Your task to perform on an android device: How much does a 3 bedroom apartment rent for in Austin? Image 0: 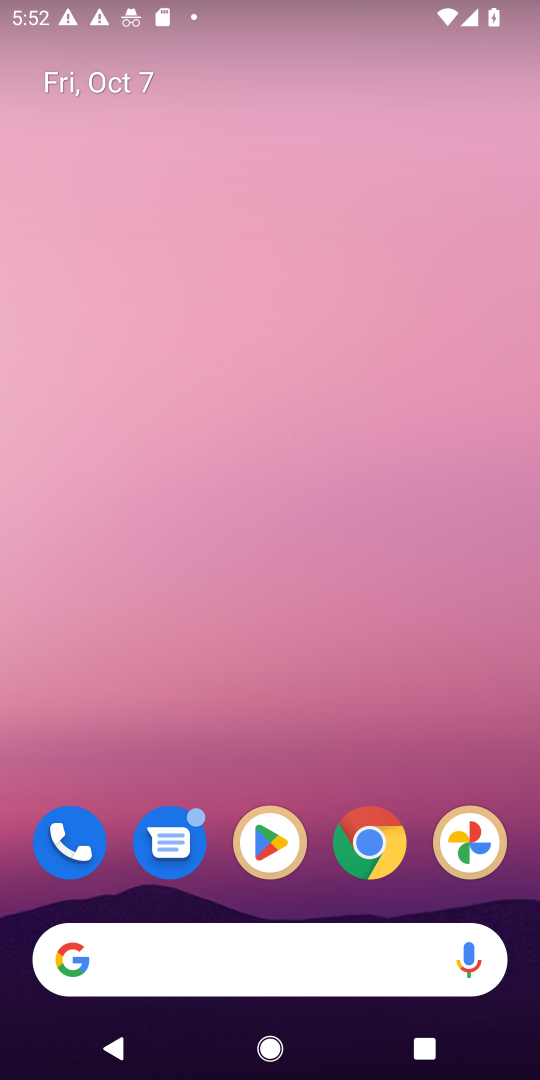
Step 0: click (221, 964)
Your task to perform on an android device: How much does a 3 bedroom apartment rent for in Austin? Image 1: 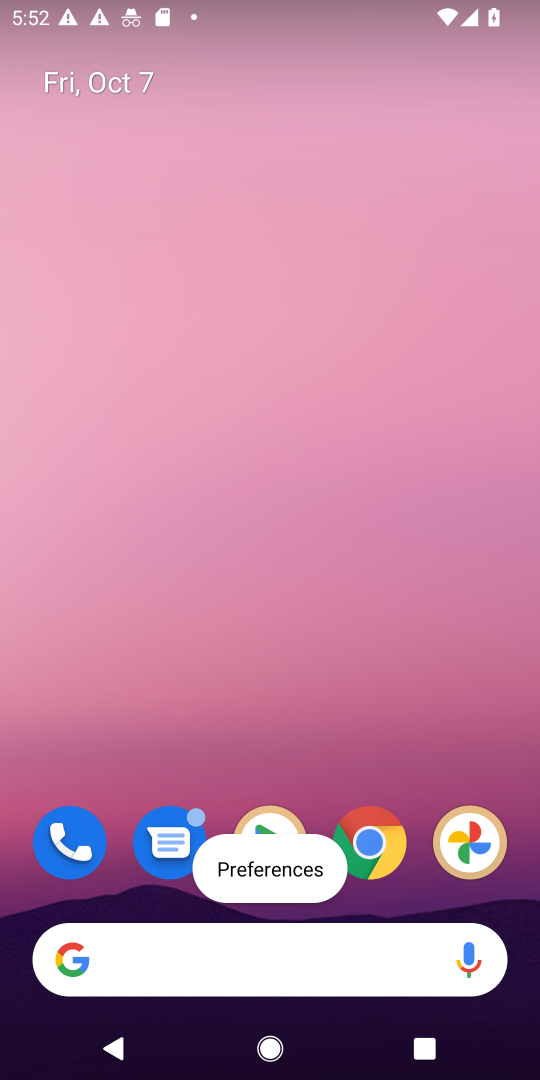
Step 1: click (288, 954)
Your task to perform on an android device: How much does a 3 bedroom apartment rent for in Austin? Image 2: 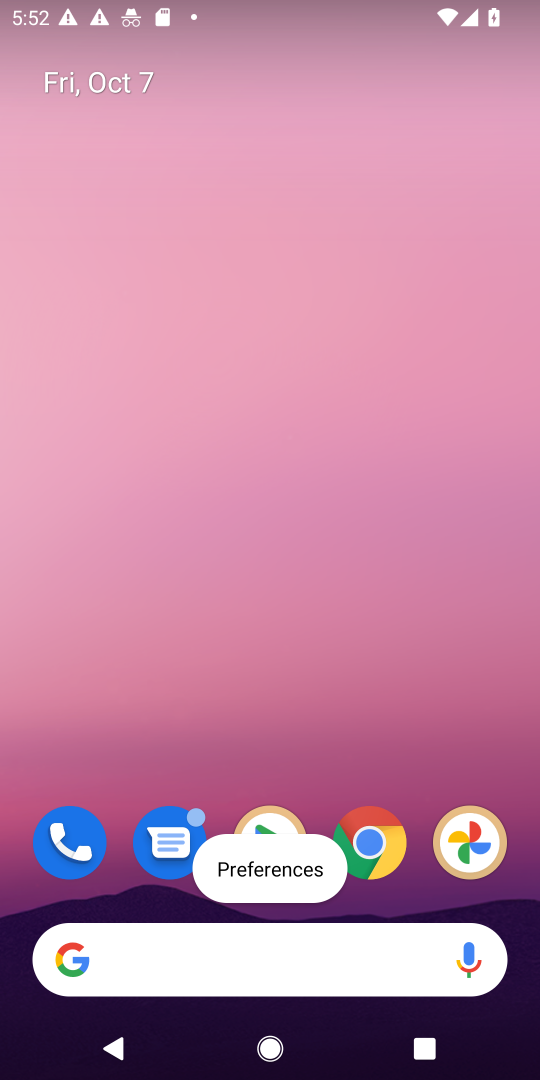
Step 2: click (205, 951)
Your task to perform on an android device: How much does a 3 bedroom apartment rent for in Austin? Image 3: 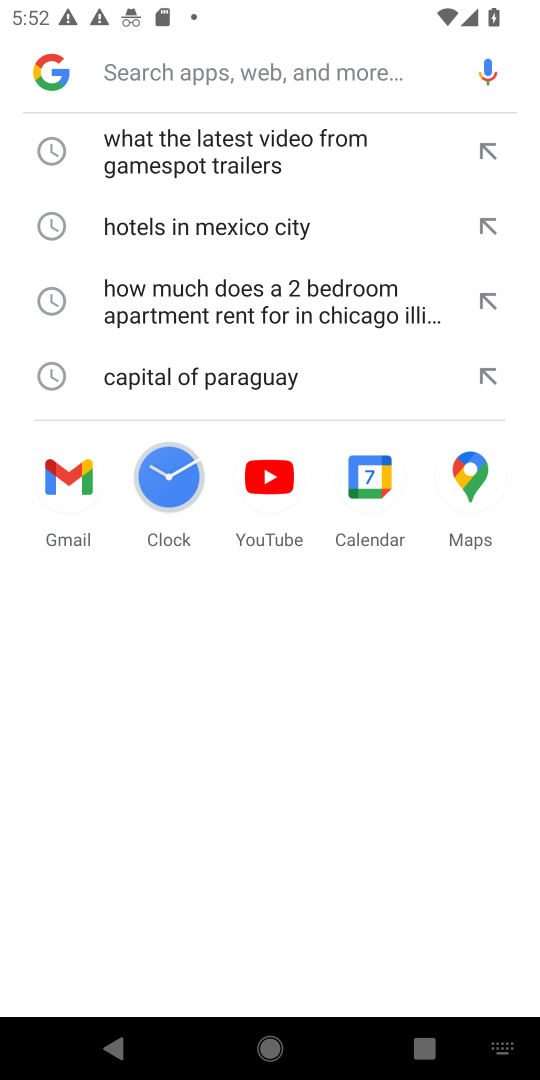
Step 3: click (218, 68)
Your task to perform on an android device: How much does a 3 bedroom apartment rent for in Austin? Image 4: 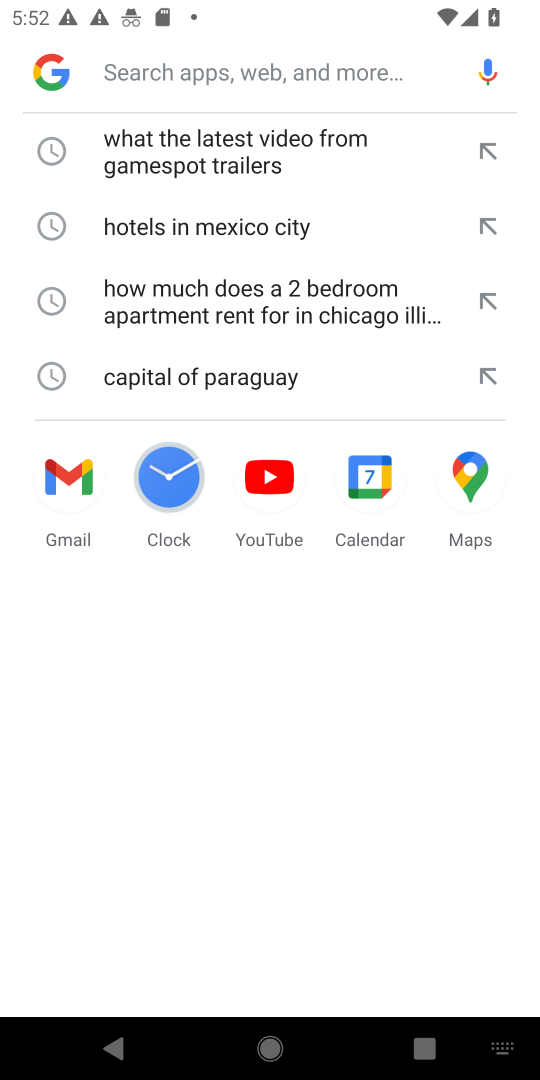
Step 4: type "How much does a 3 bedroom apartment rent for in Austin?"
Your task to perform on an android device: How much does a 3 bedroom apartment rent for in Austin? Image 5: 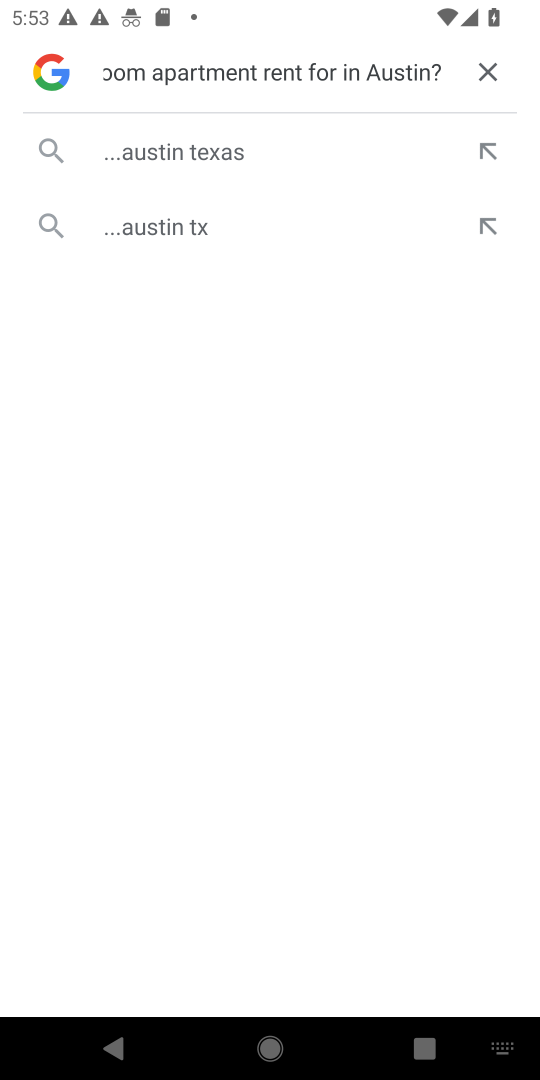
Step 5: click (211, 232)
Your task to perform on an android device: How much does a 3 bedroom apartment rent for in Austin? Image 6: 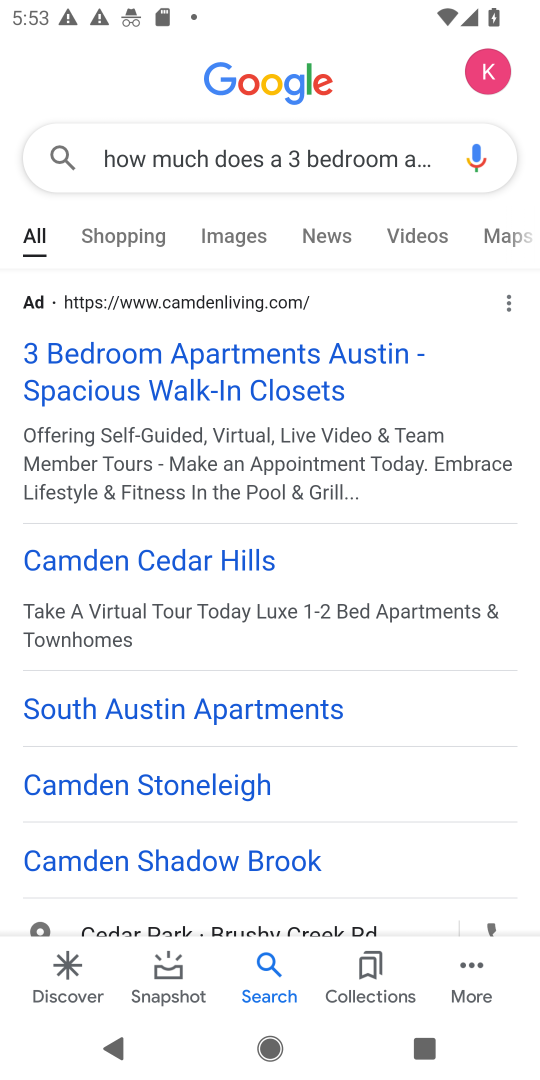
Step 6: drag from (283, 854) to (338, 420)
Your task to perform on an android device: How much does a 3 bedroom apartment rent for in Austin? Image 7: 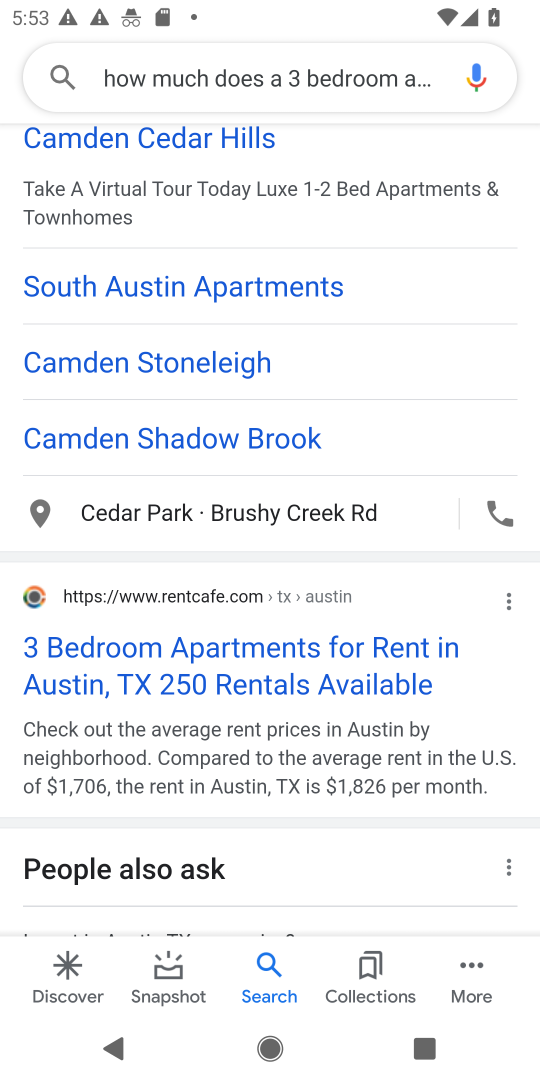
Step 7: drag from (357, 282) to (261, 905)
Your task to perform on an android device: How much does a 3 bedroom apartment rent for in Austin? Image 8: 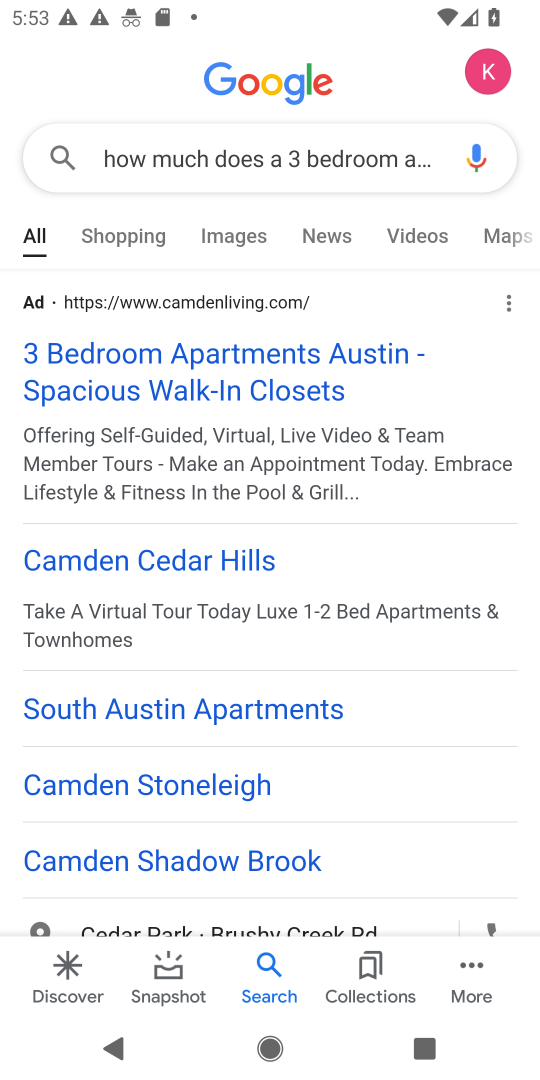
Step 8: drag from (248, 752) to (356, 124)
Your task to perform on an android device: How much does a 3 bedroom apartment rent for in Austin? Image 9: 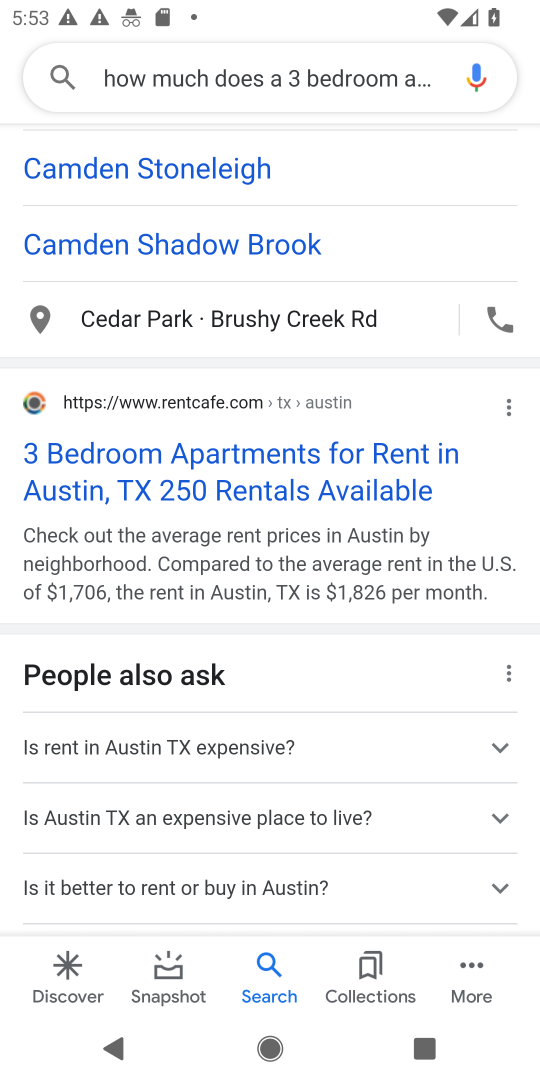
Step 9: drag from (213, 760) to (291, 7)
Your task to perform on an android device: How much does a 3 bedroom apartment rent for in Austin? Image 10: 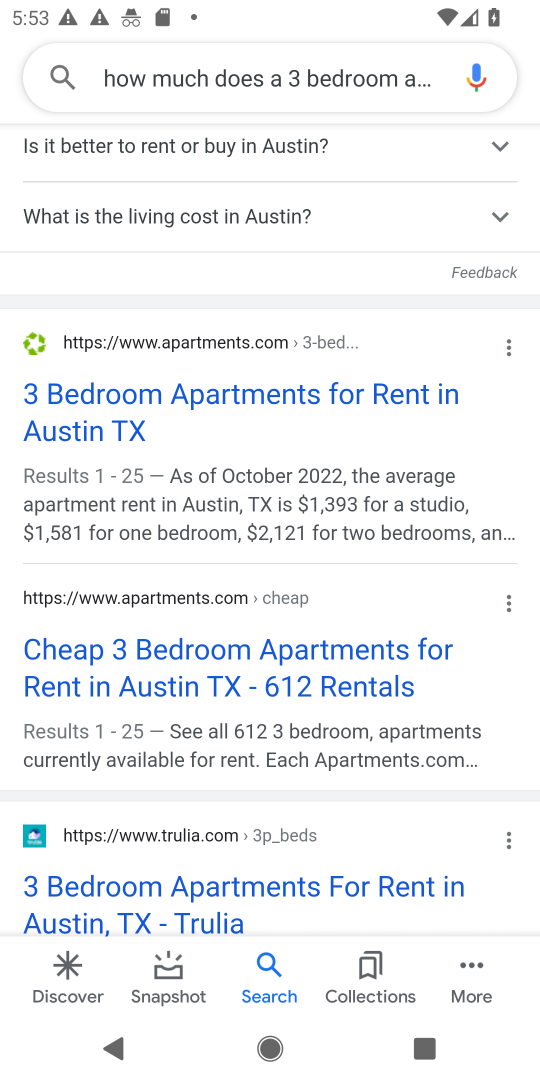
Step 10: drag from (230, 765) to (285, 423)
Your task to perform on an android device: How much does a 3 bedroom apartment rent for in Austin? Image 11: 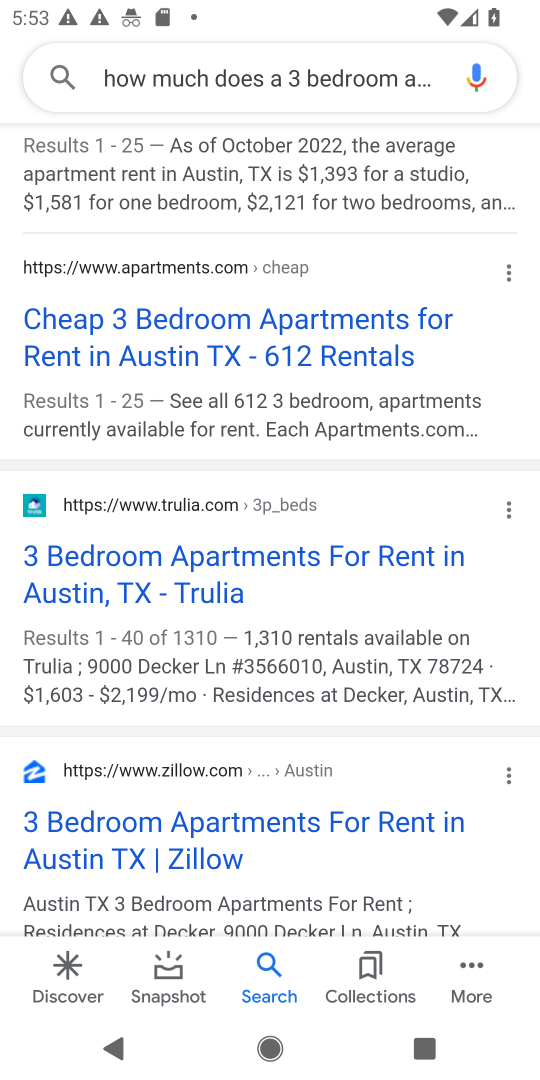
Step 11: click (212, 326)
Your task to perform on an android device: How much does a 3 bedroom apartment rent for in Austin? Image 12: 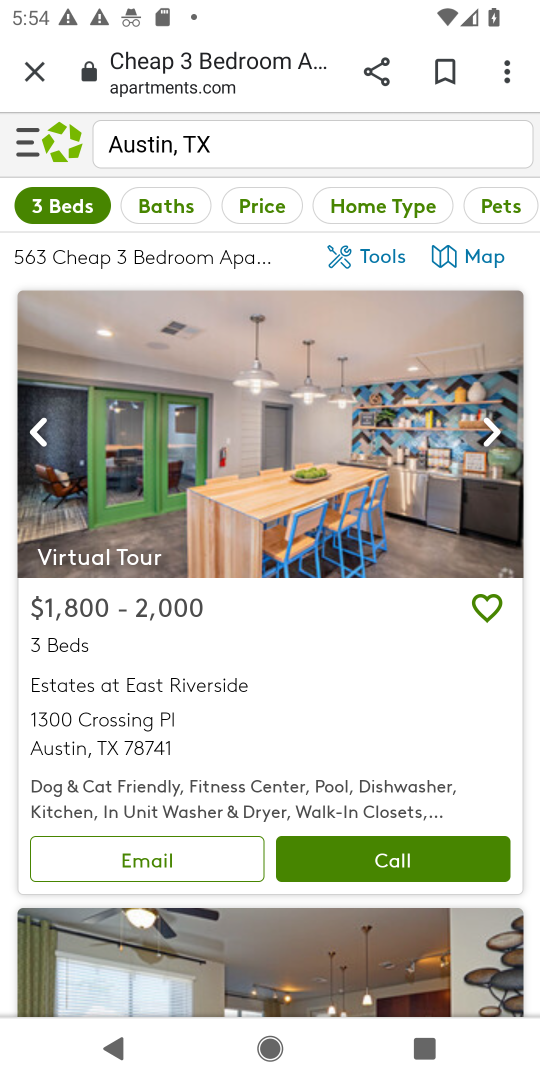
Step 12: task complete